Your task to perform on an android device: Open battery settings Image 0: 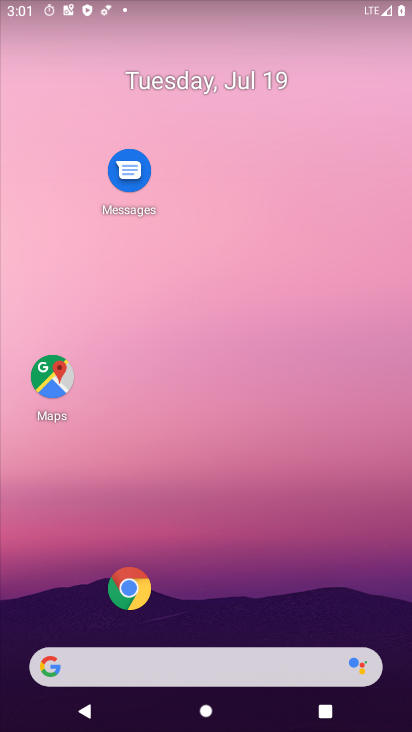
Step 0: drag from (118, 460) to (215, 147)
Your task to perform on an android device: Open battery settings Image 1: 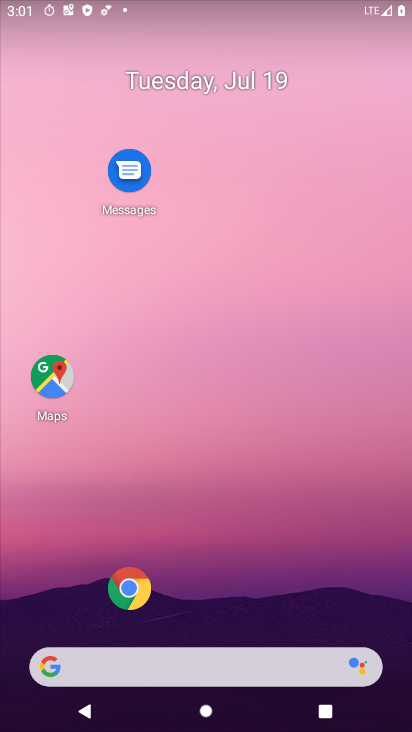
Step 1: drag from (38, 697) to (291, 27)
Your task to perform on an android device: Open battery settings Image 2: 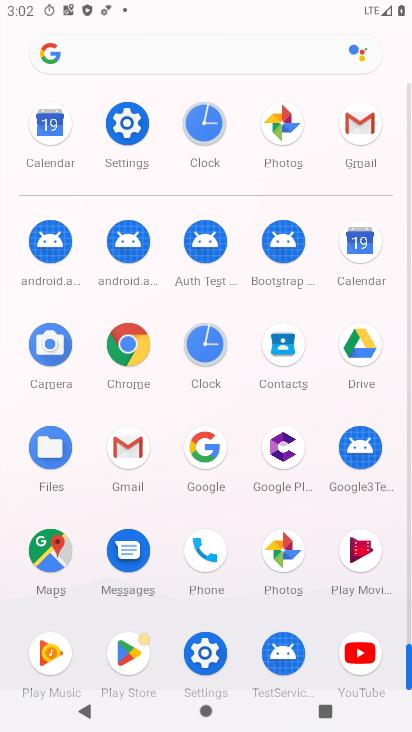
Step 2: click (202, 661)
Your task to perform on an android device: Open battery settings Image 3: 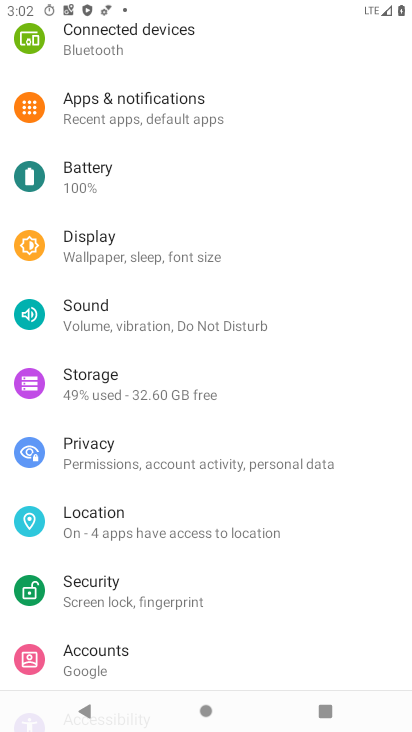
Step 3: click (123, 173)
Your task to perform on an android device: Open battery settings Image 4: 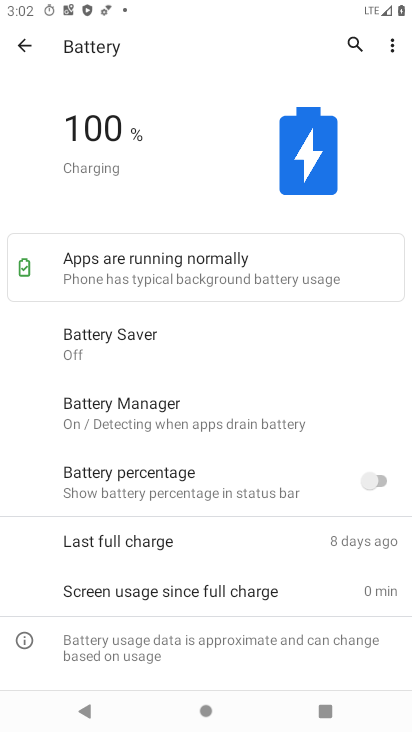
Step 4: task complete